Your task to perform on an android device: Open network settings Image 0: 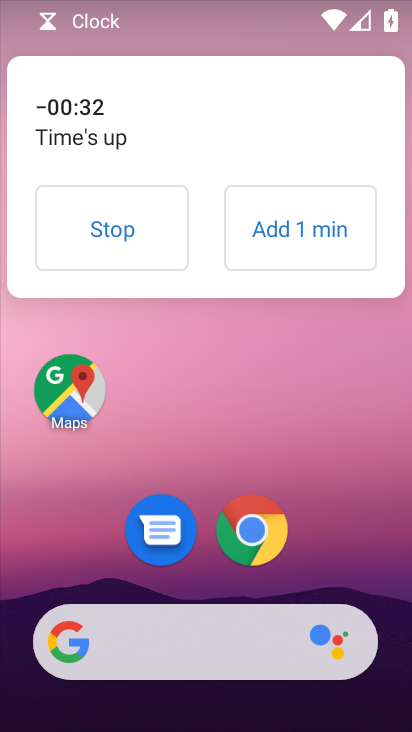
Step 0: click (107, 224)
Your task to perform on an android device: Open network settings Image 1: 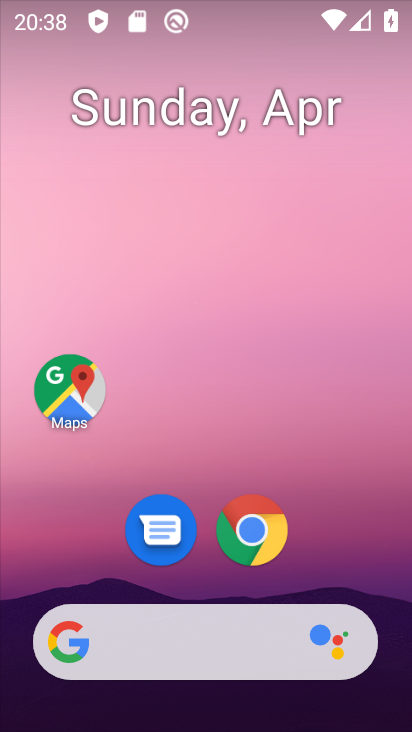
Step 1: drag from (205, 566) to (241, 22)
Your task to perform on an android device: Open network settings Image 2: 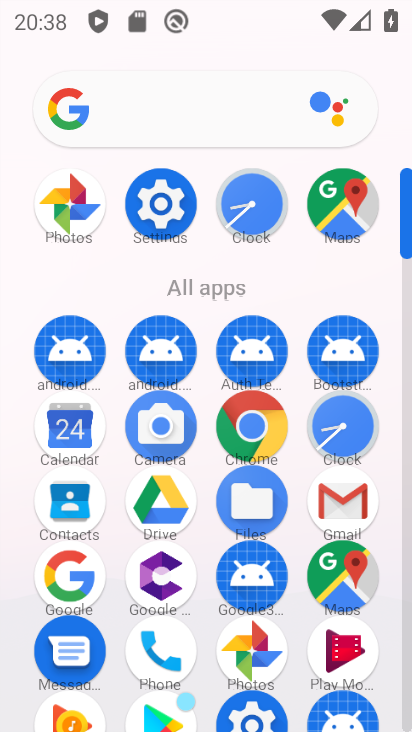
Step 2: click (146, 198)
Your task to perform on an android device: Open network settings Image 3: 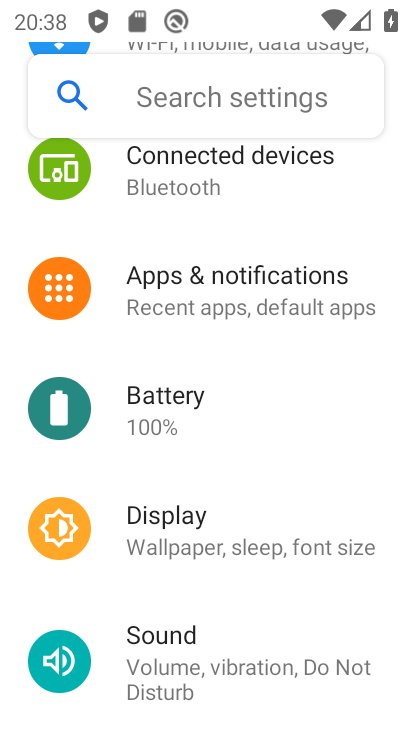
Step 3: drag from (258, 257) to (240, 696)
Your task to perform on an android device: Open network settings Image 4: 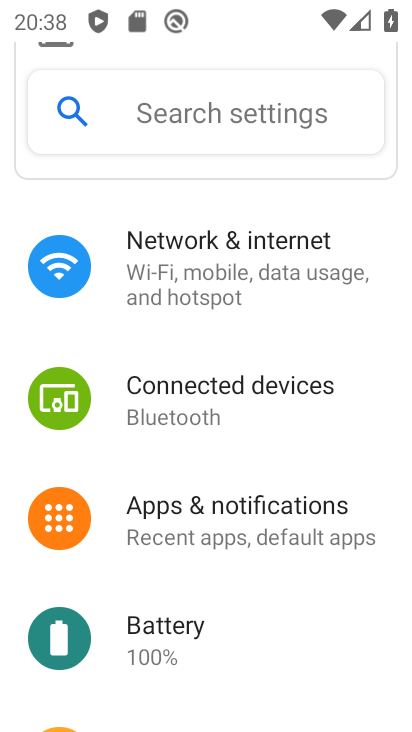
Step 4: click (239, 285)
Your task to perform on an android device: Open network settings Image 5: 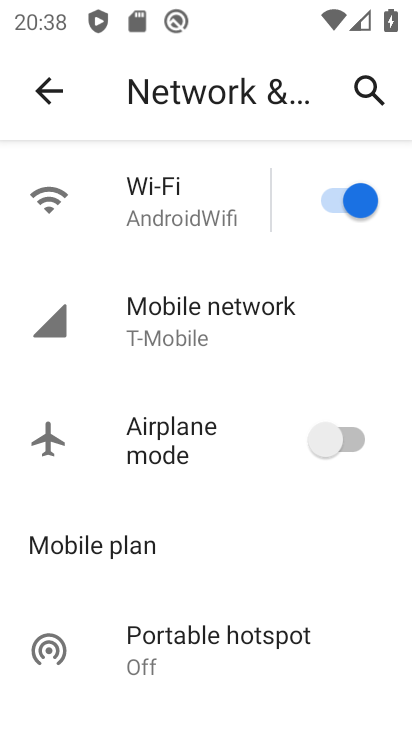
Step 5: click (236, 306)
Your task to perform on an android device: Open network settings Image 6: 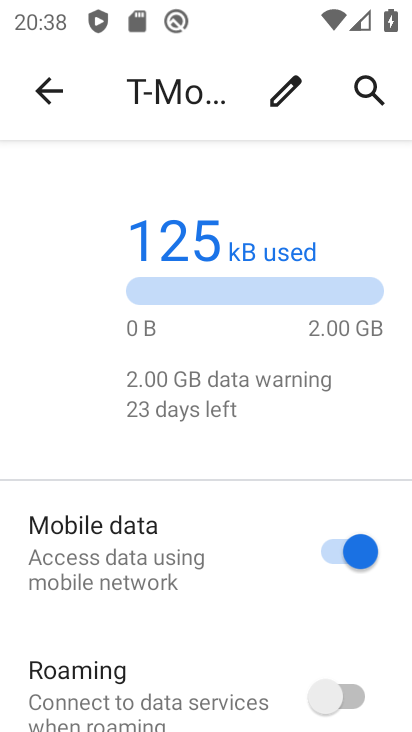
Step 6: task complete